Your task to perform on an android device: Go to accessibility settings Image 0: 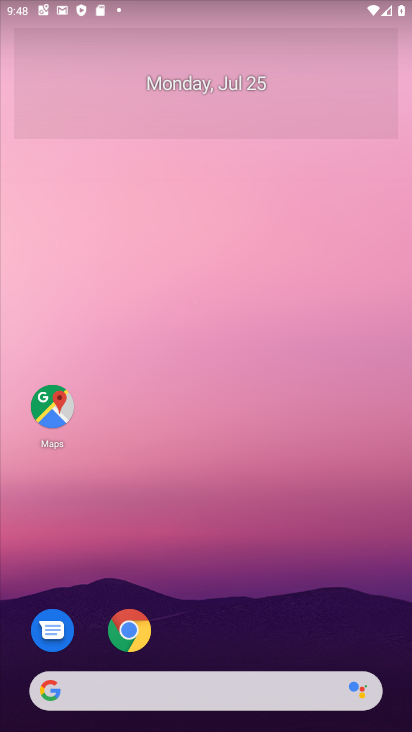
Step 0: press home button
Your task to perform on an android device: Go to accessibility settings Image 1: 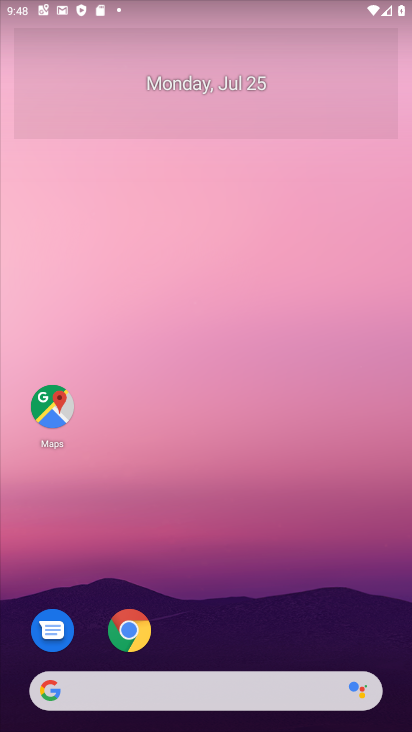
Step 1: drag from (266, 645) to (294, 34)
Your task to perform on an android device: Go to accessibility settings Image 2: 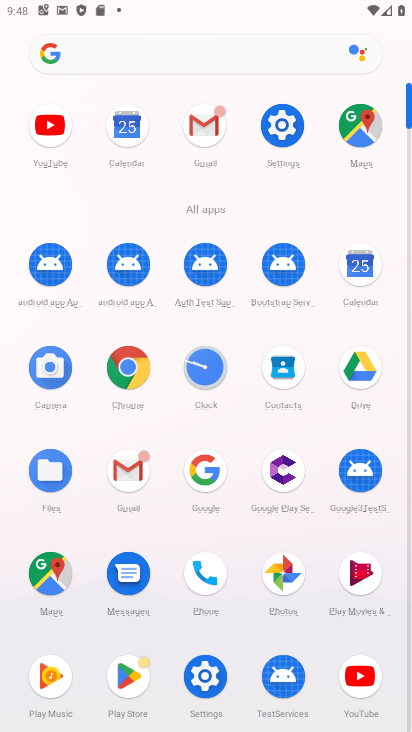
Step 2: click (282, 117)
Your task to perform on an android device: Go to accessibility settings Image 3: 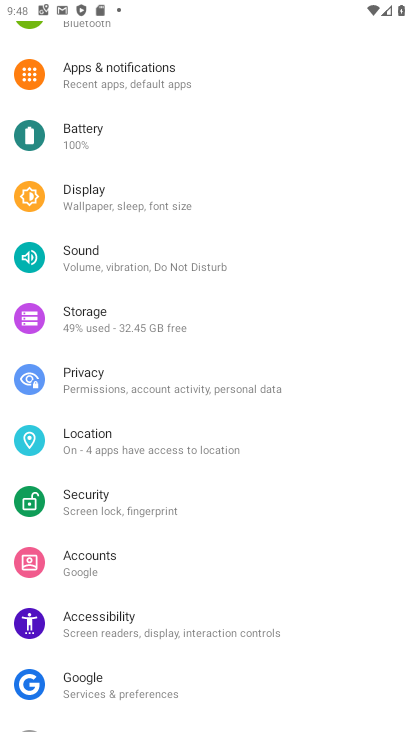
Step 3: click (100, 619)
Your task to perform on an android device: Go to accessibility settings Image 4: 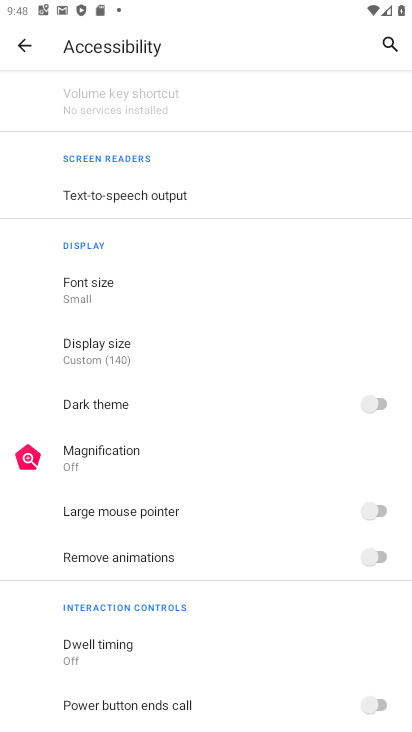
Step 4: task complete